Your task to perform on an android device: Go to CNN.com Image 0: 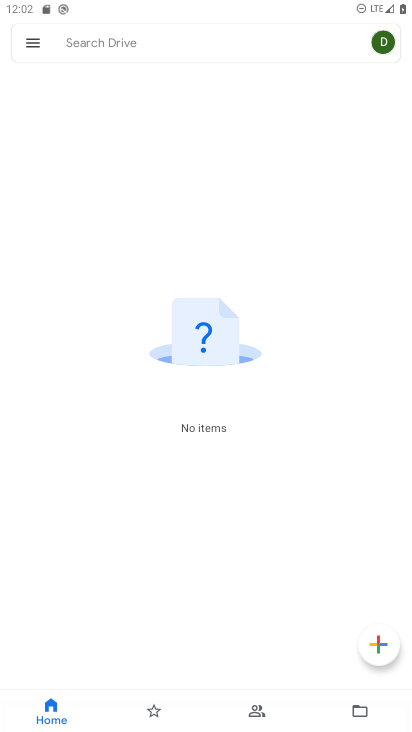
Step 0: press home button
Your task to perform on an android device: Go to CNN.com Image 1: 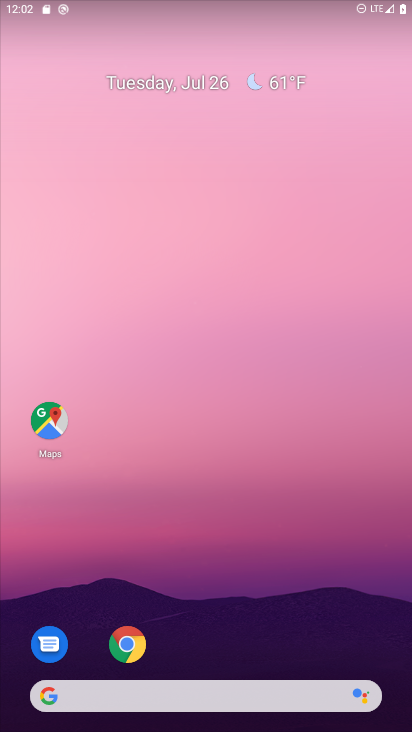
Step 1: click (140, 652)
Your task to perform on an android device: Go to CNN.com Image 2: 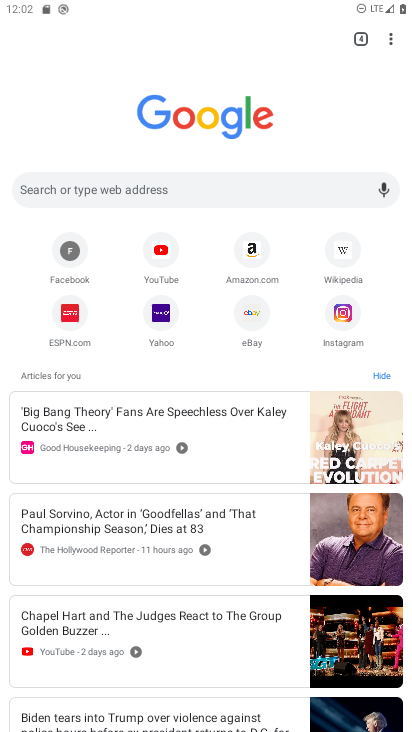
Step 2: click (233, 190)
Your task to perform on an android device: Go to CNN.com Image 3: 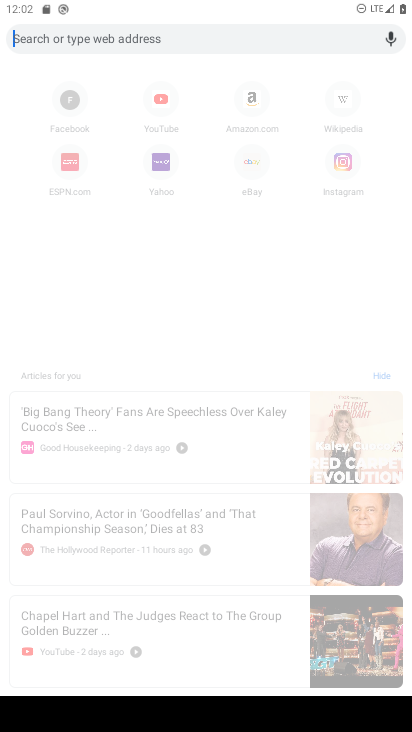
Step 3: type " CNN.com"
Your task to perform on an android device: Go to CNN.com Image 4: 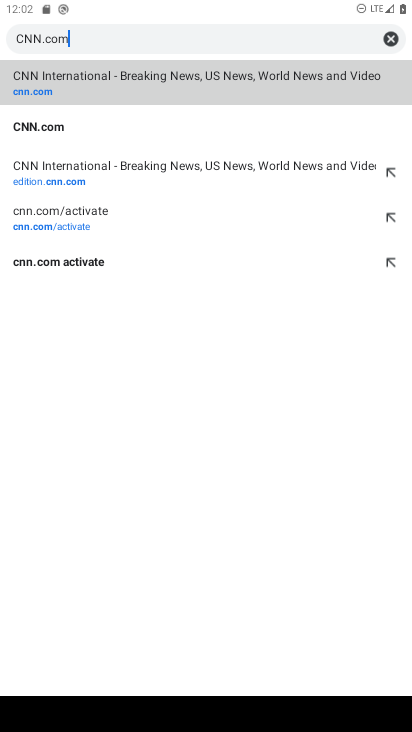
Step 4: click (201, 71)
Your task to perform on an android device: Go to CNN.com Image 5: 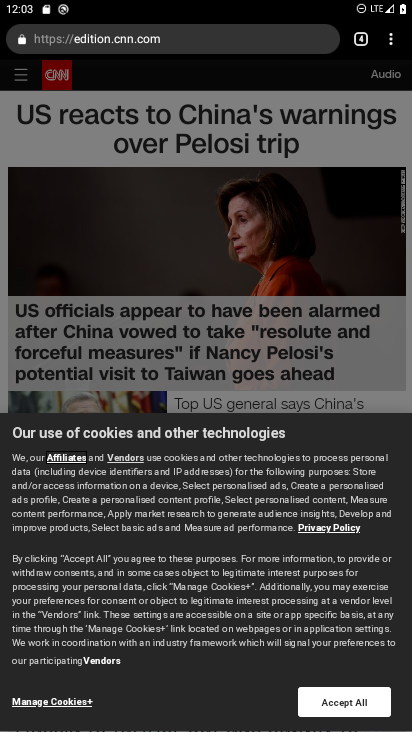
Step 5: task complete